Your task to perform on an android device: Open ESPN.com Image 0: 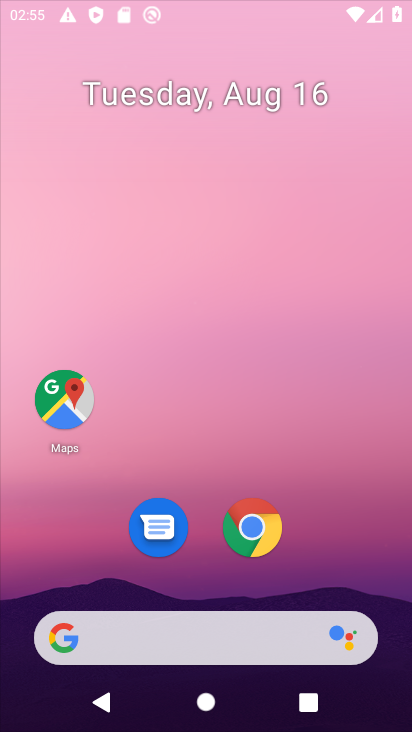
Step 0: press home button
Your task to perform on an android device: Open ESPN.com Image 1: 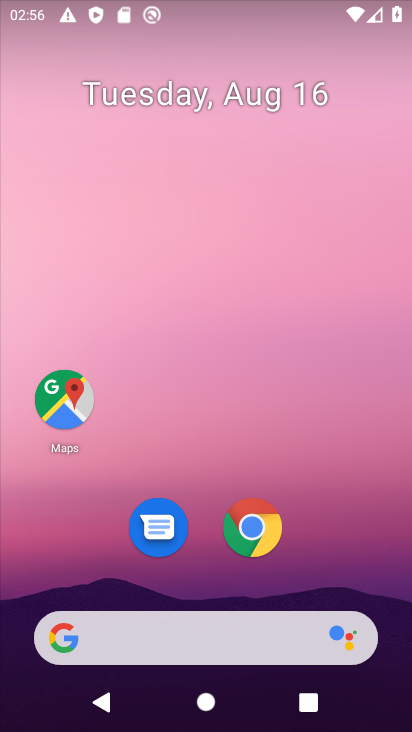
Step 1: click (253, 518)
Your task to perform on an android device: Open ESPN.com Image 2: 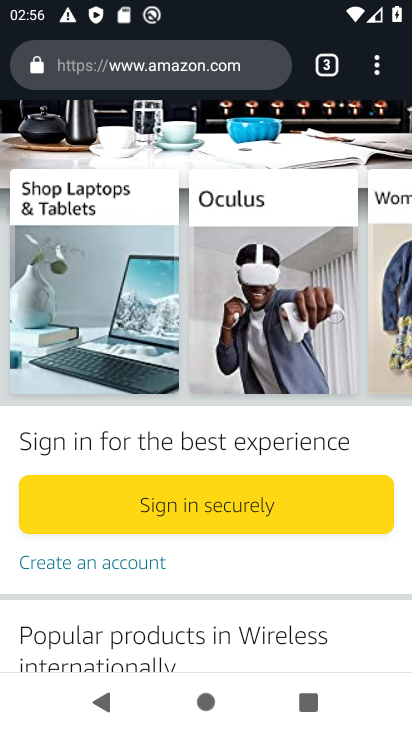
Step 2: click (319, 58)
Your task to perform on an android device: Open ESPN.com Image 3: 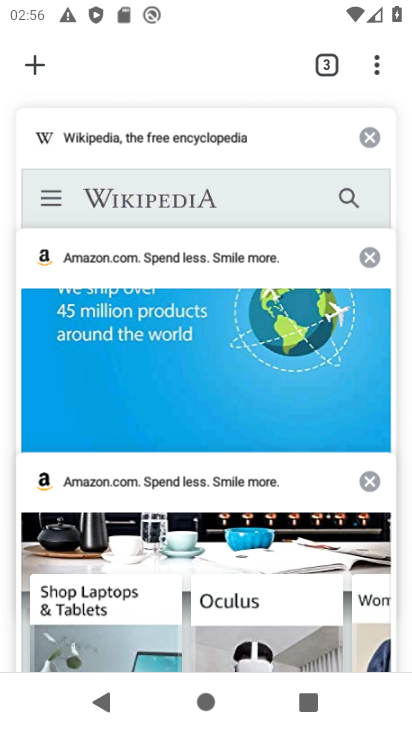
Step 3: click (41, 67)
Your task to perform on an android device: Open ESPN.com Image 4: 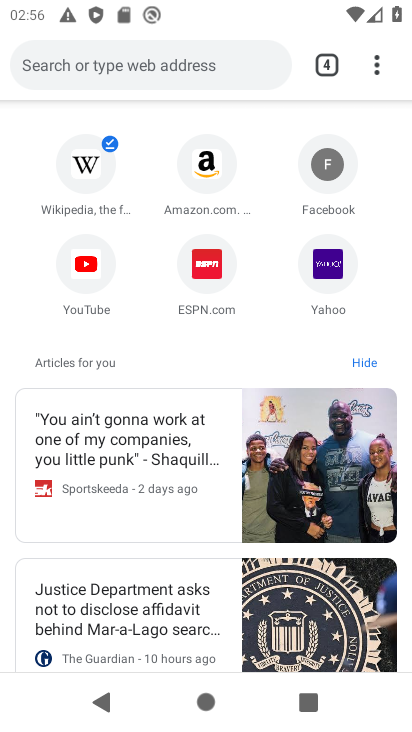
Step 4: click (199, 269)
Your task to perform on an android device: Open ESPN.com Image 5: 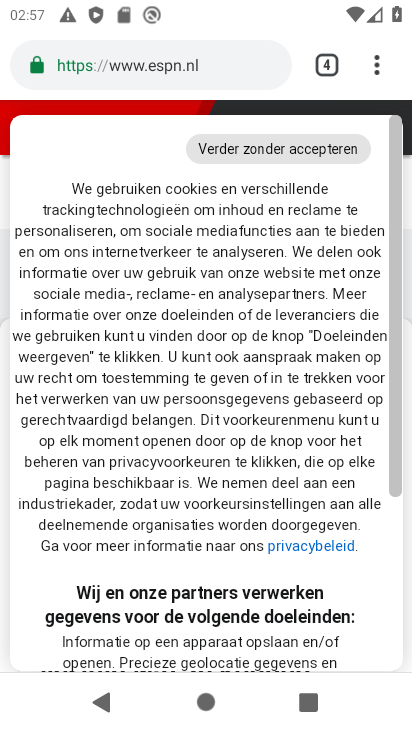
Step 5: drag from (189, 618) to (175, 60)
Your task to perform on an android device: Open ESPN.com Image 6: 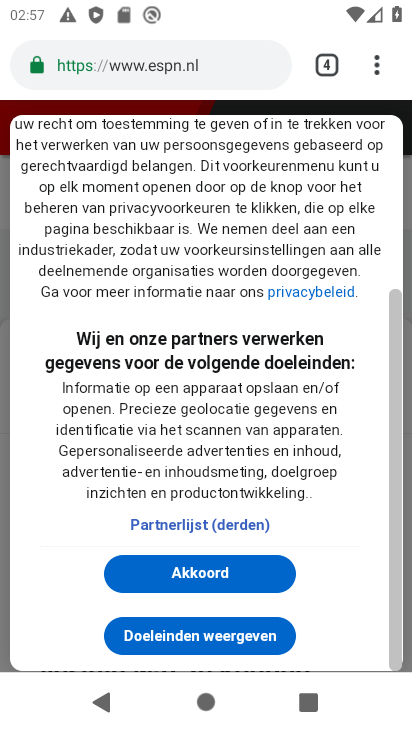
Step 6: click (189, 578)
Your task to perform on an android device: Open ESPN.com Image 7: 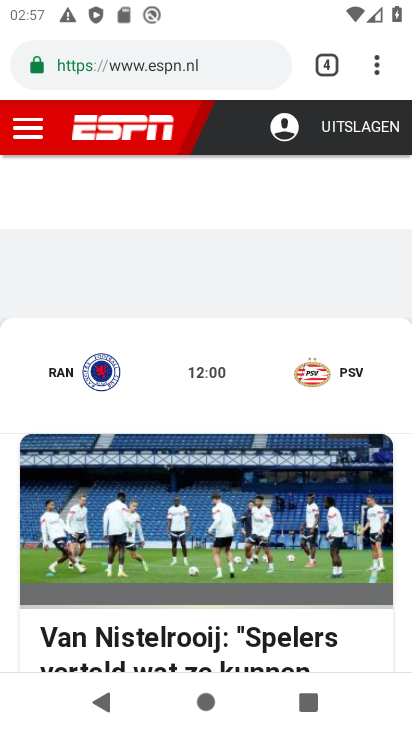
Step 7: task complete